Your task to perform on an android device: open chrome privacy settings Image 0: 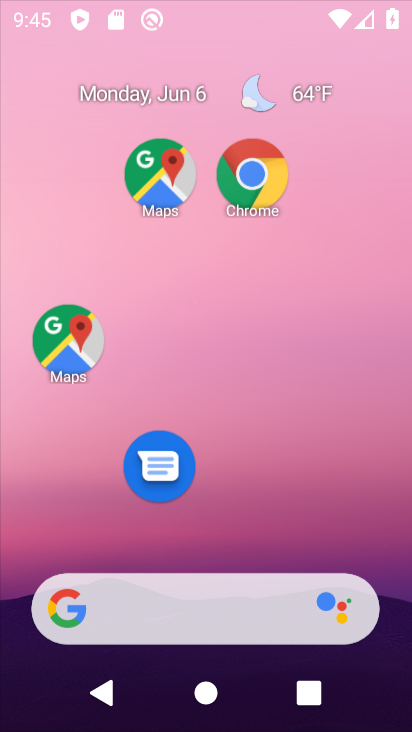
Step 0: press back button
Your task to perform on an android device: open chrome privacy settings Image 1: 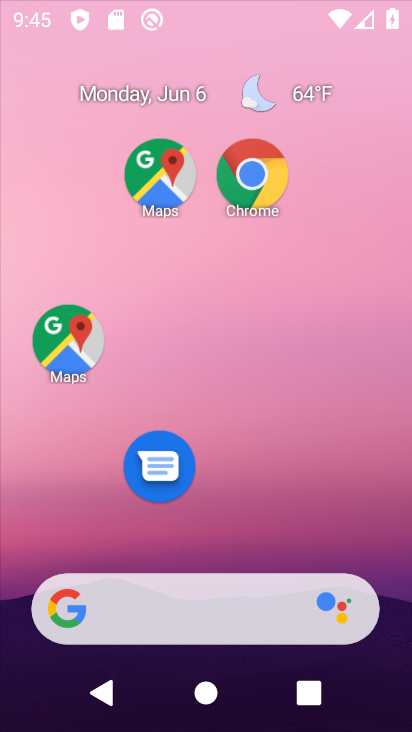
Step 1: drag from (247, 699) to (228, 336)
Your task to perform on an android device: open chrome privacy settings Image 2: 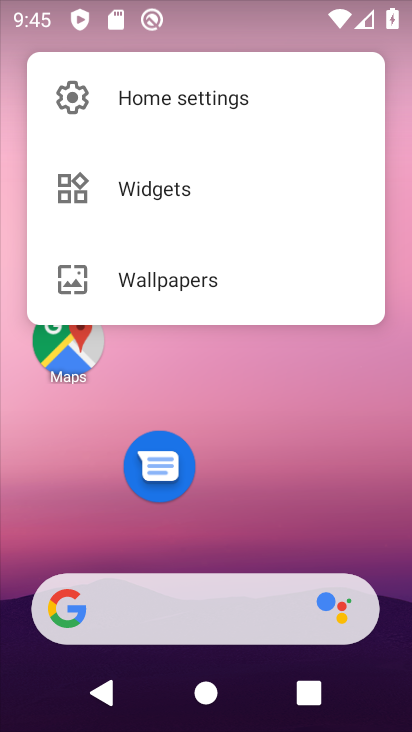
Step 2: click (282, 394)
Your task to perform on an android device: open chrome privacy settings Image 3: 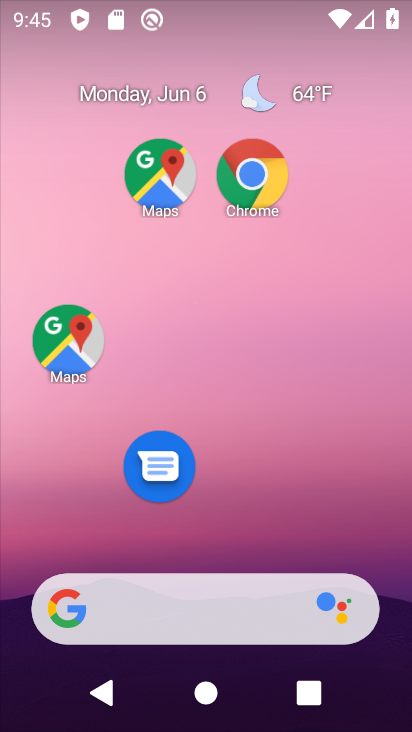
Step 3: drag from (260, 672) to (257, 115)
Your task to perform on an android device: open chrome privacy settings Image 4: 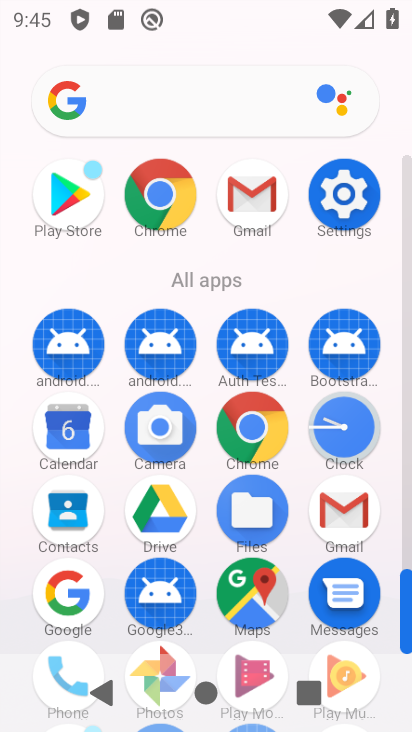
Step 4: click (160, 190)
Your task to perform on an android device: open chrome privacy settings Image 5: 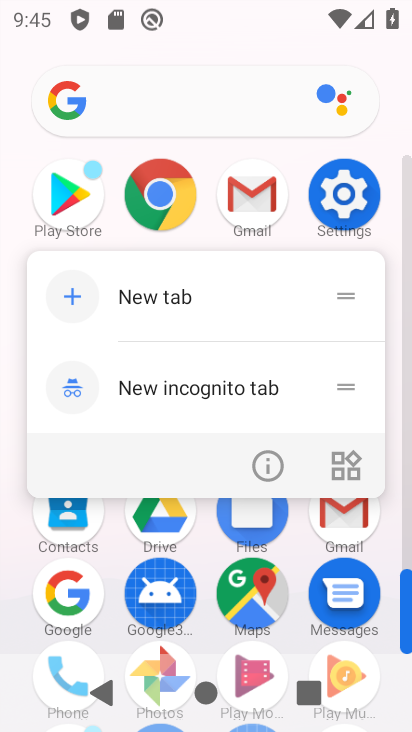
Step 5: click (168, 301)
Your task to perform on an android device: open chrome privacy settings Image 6: 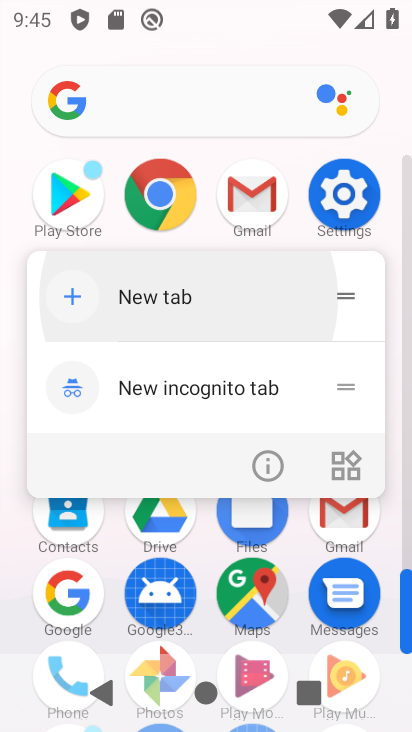
Step 6: click (168, 301)
Your task to perform on an android device: open chrome privacy settings Image 7: 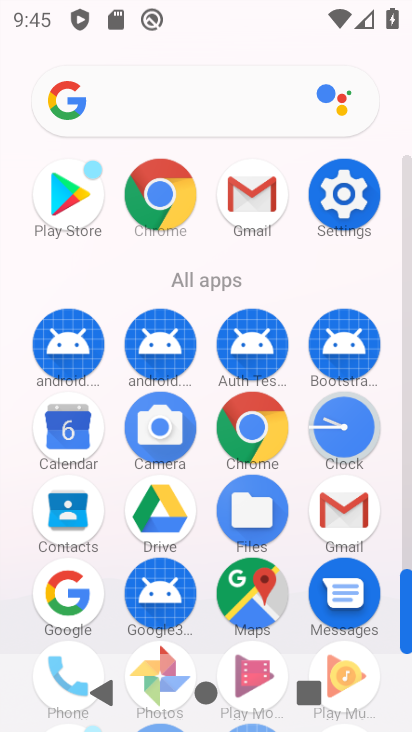
Step 7: click (169, 298)
Your task to perform on an android device: open chrome privacy settings Image 8: 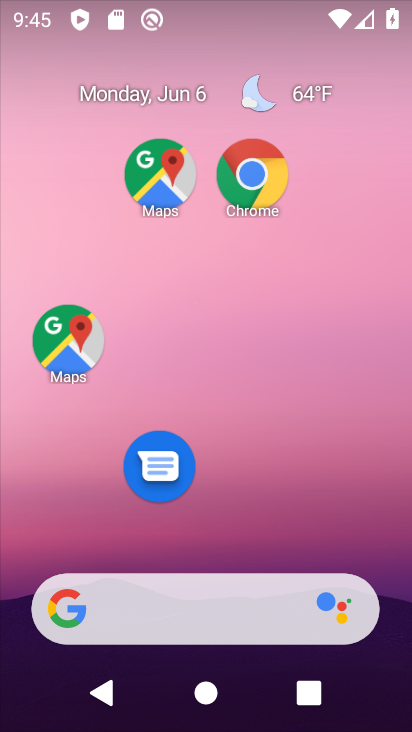
Step 8: drag from (286, 688) to (220, 161)
Your task to perform on an android device: open chrome privacy settings Image 9: 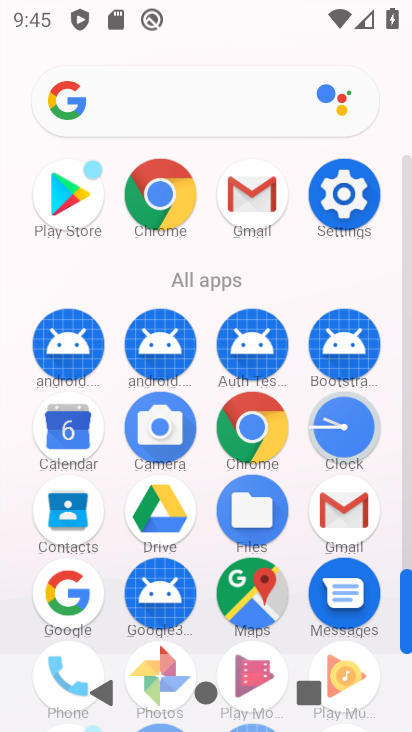
Step 9: click (153, 198)
Your task to perform on an android device: open chrome privacy settings Image 10: 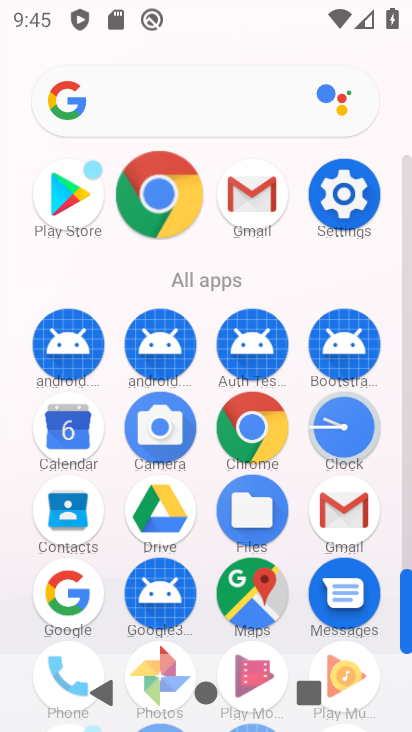
Step 10: click (154, 199)
Your task to perform on an android device: open chrome privacy settings Image 11: 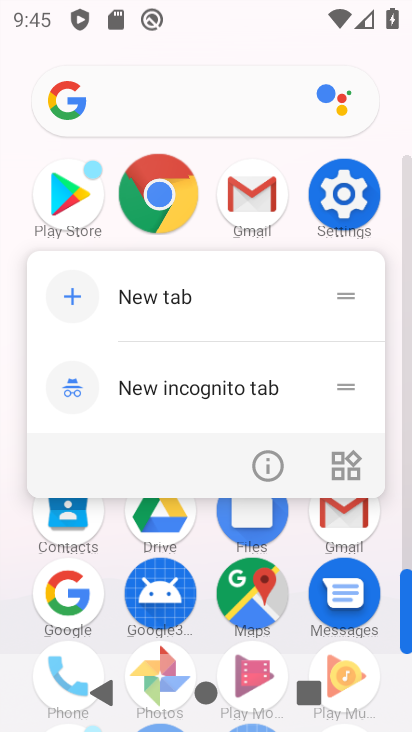
Step 11: click (154, 199)
Your task to perform on an android device: open chrome privacy settings Image 12: 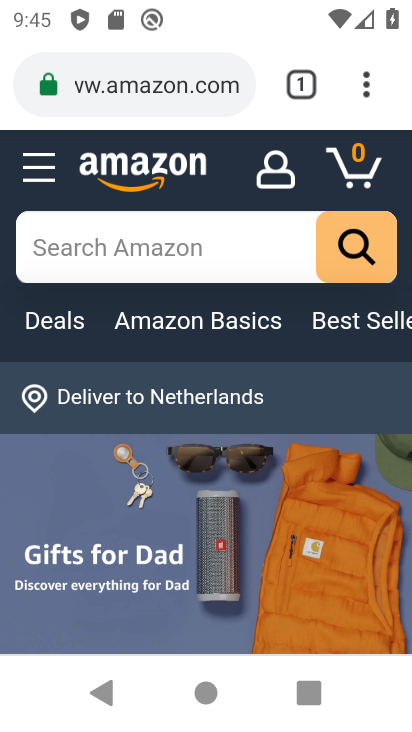
Step 12: drag from (357, 93) to (57, 506)
Your task to perform on an android device: open chrome privacy settings Image 13: 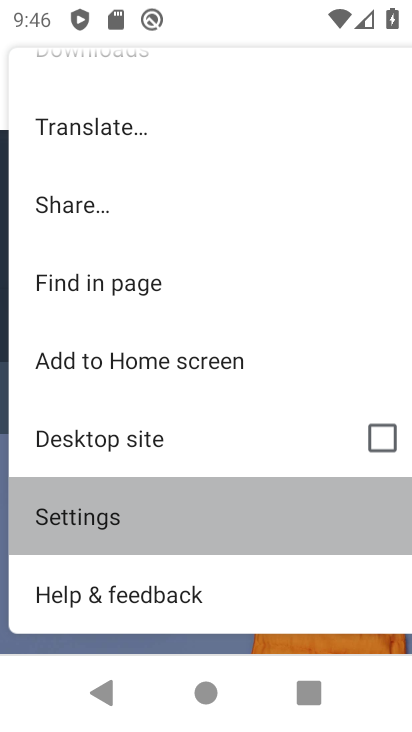
Step 13: click (57, 506)
Your task to perform on an android device: open chrome privacy settings Image 14: 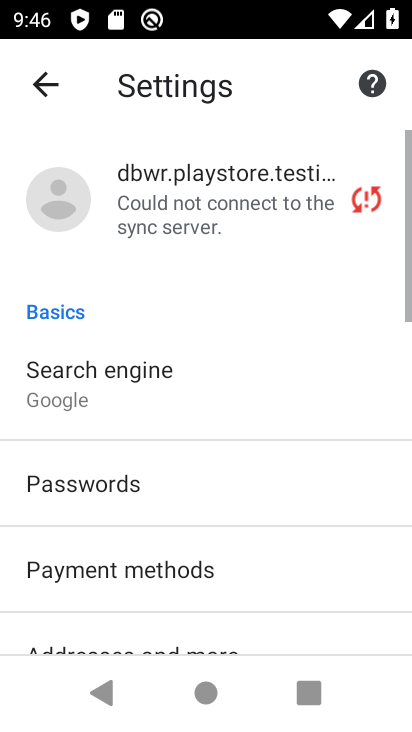
Step 14: drag from (151, 445) to (98, 169)
Your task to perform on an android device: open chrome privacy settings Image 15: 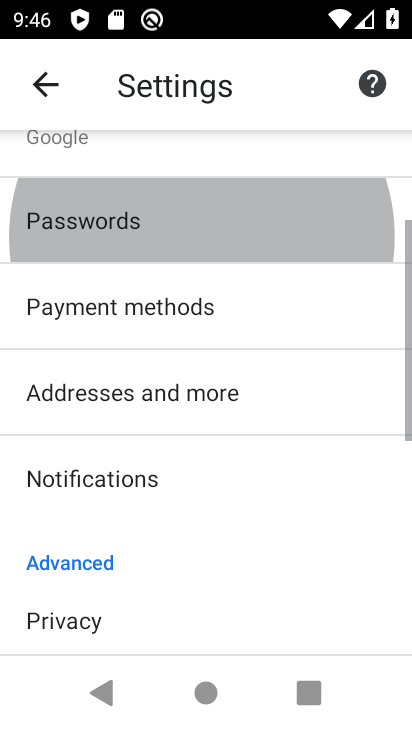
Step 15: drag from (146, 349) to (146, 110)
Your task to perform on an android device: open chrome privacy settings Image 16: 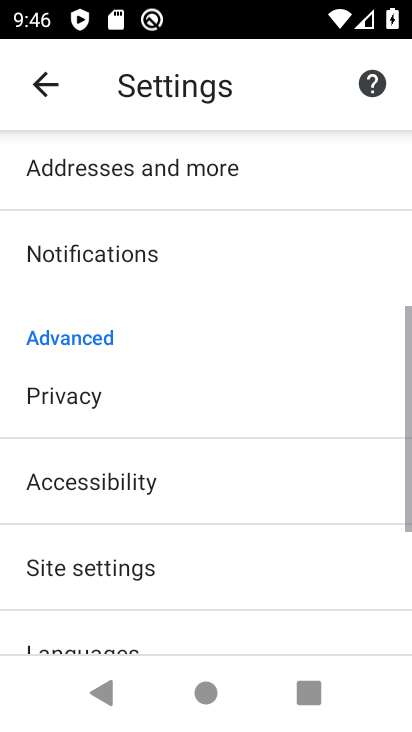
Step 16: drag from (149, 410) to (149, 137)
Your task to perform on an android device: open chrome privacy settings Image 17: 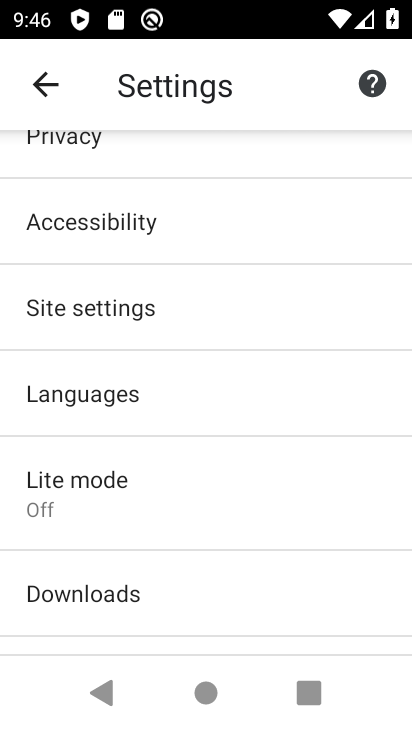
Step 17: click (63, 148)
Your task to perform on an android device: open chrome privacy settings Image 18: 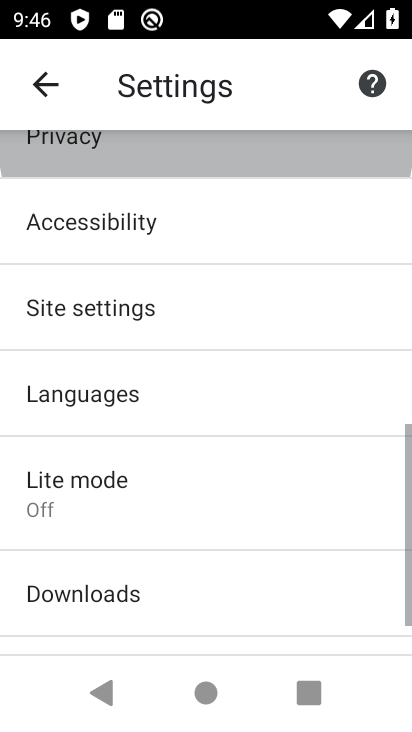
Step 18: click (63, 148)
Your task to perform on an android device: open chrome privacy settings Image 19: 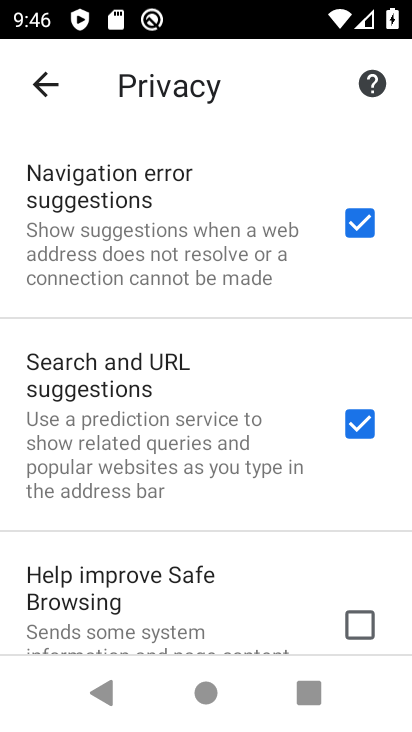
Step 19: task complete